Your task to perform on an android device: Go to calendar. Show me events next week Image 0: 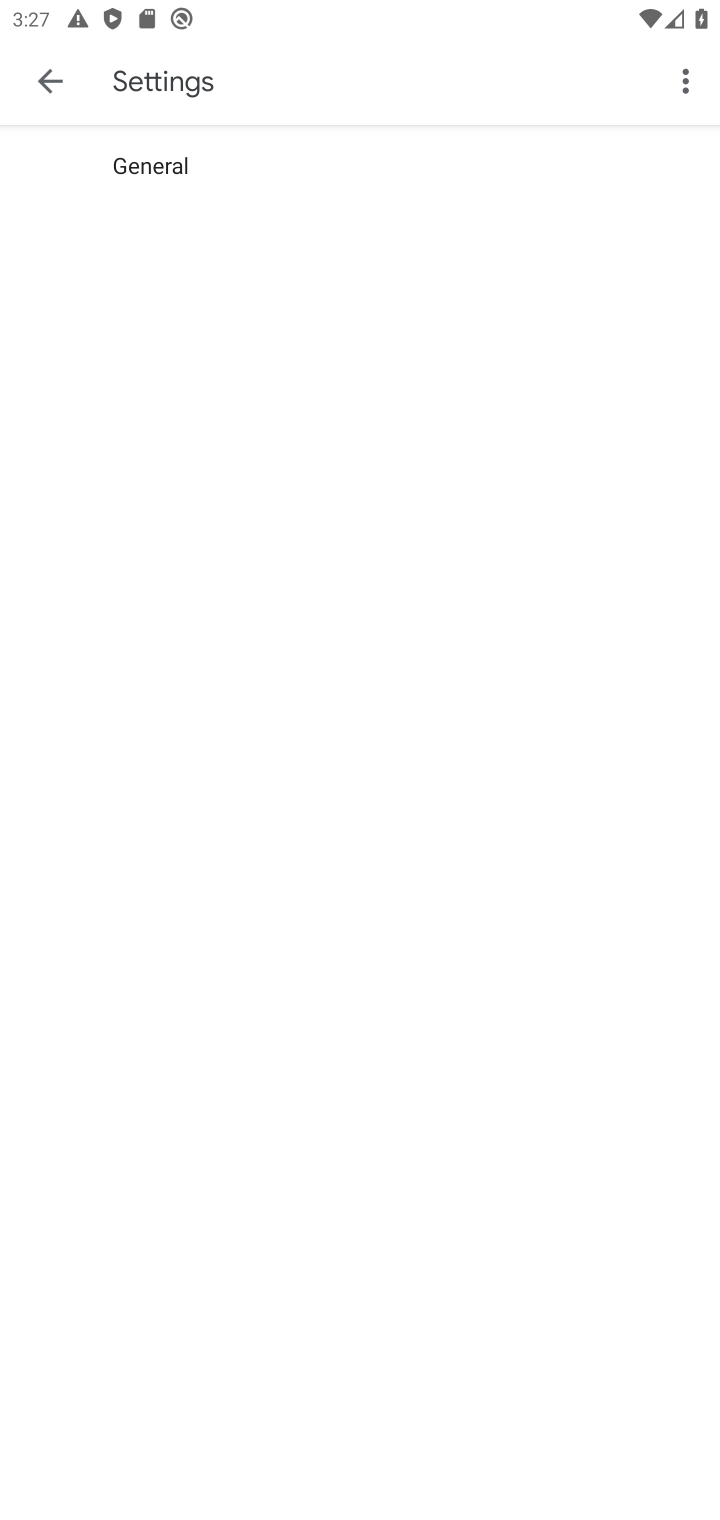
Step 0: press home button
Your task to perform on an android device: Go to calendar. Show me events next week Image 1: 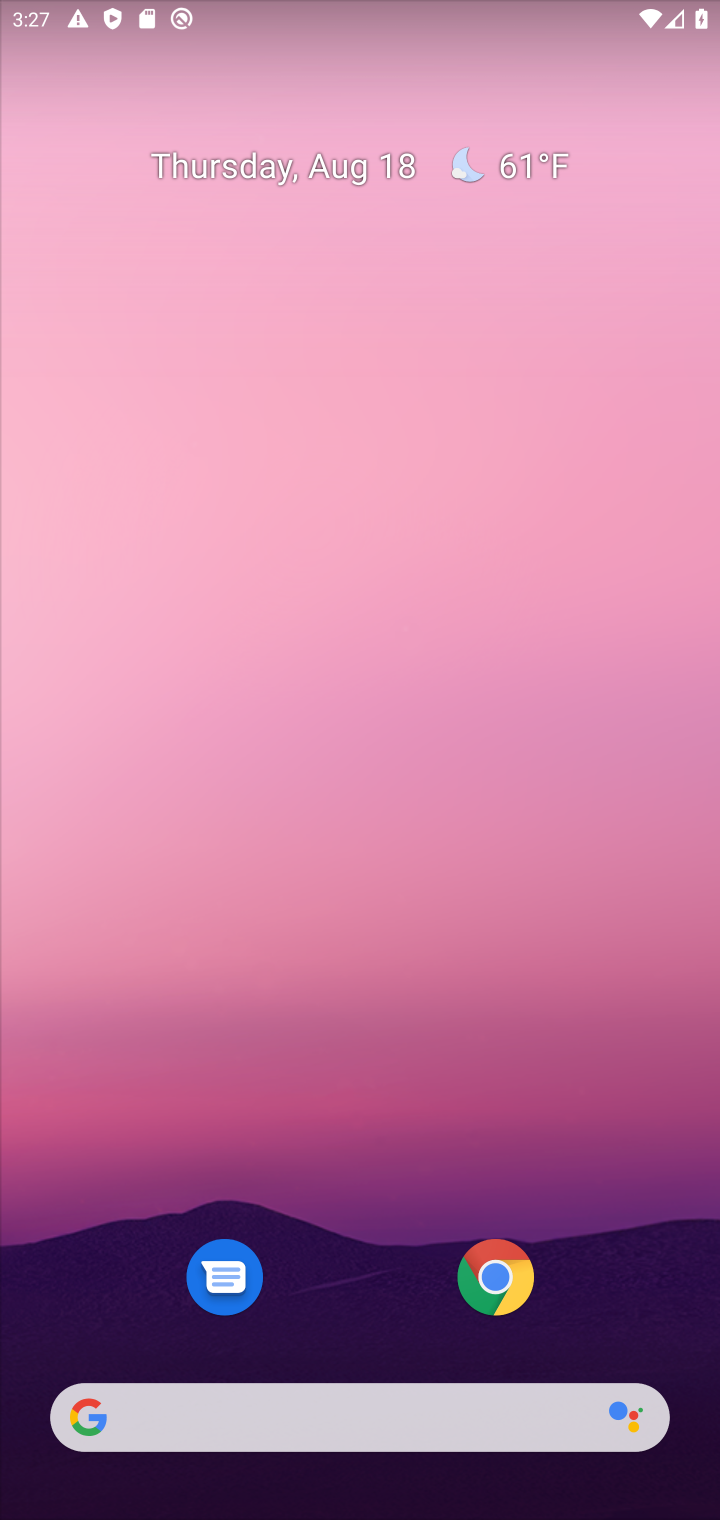
Step 1: task complete